Your task to perform on an android device: Go to ESPN.com Image 0: 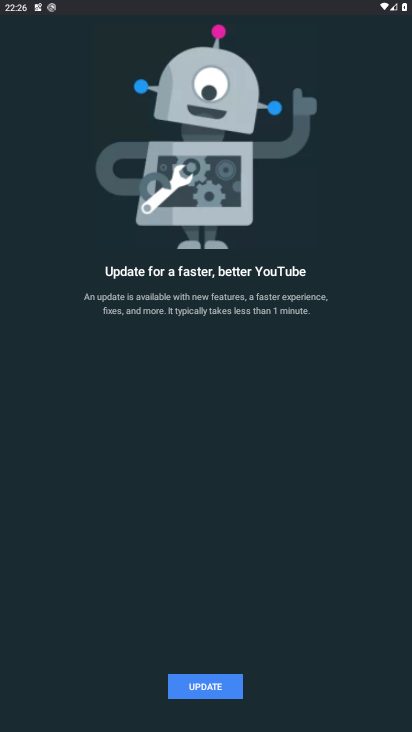
Step 0: press home button
Your task to perform on an android device: Go to ESPN.com Image 1: 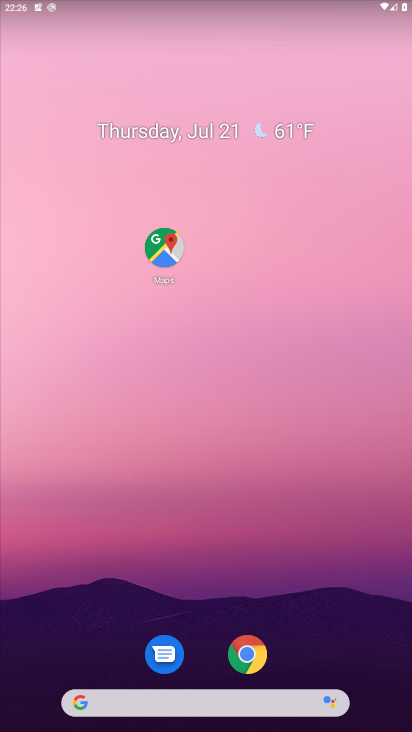
Step 1: click (143, 695)
Your task to perform on an android device: Go to ESPN.com Image 2: 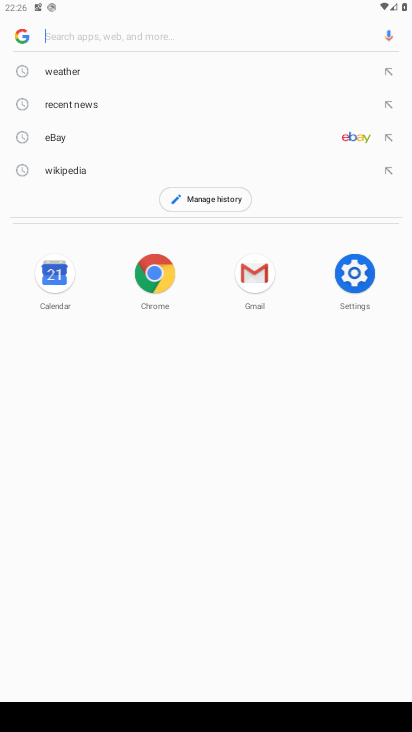
Step 2: click (59, 37)
Your task to perform on an android device: Go to ESPN.com Image 3: 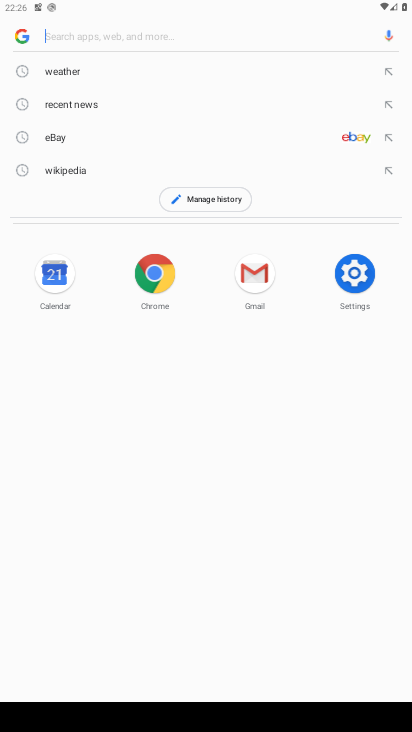
Step 3: type "ESPN.com"
Your task to perform on an android device: Go to ESPN.com Image 4: 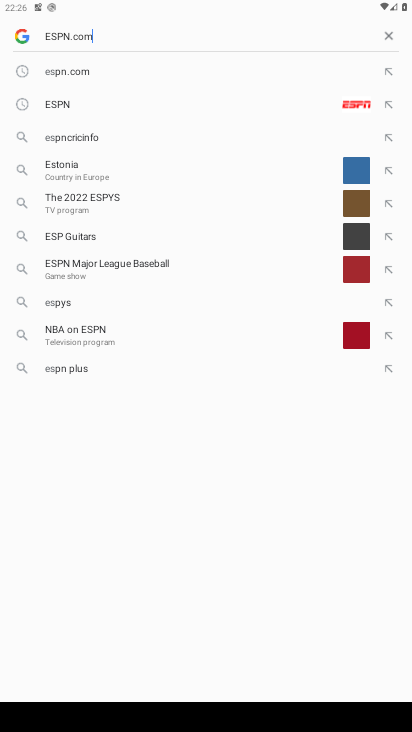
Step 4: type ""
Your task to perform on an android device: Go to ESPN.com Image 5: 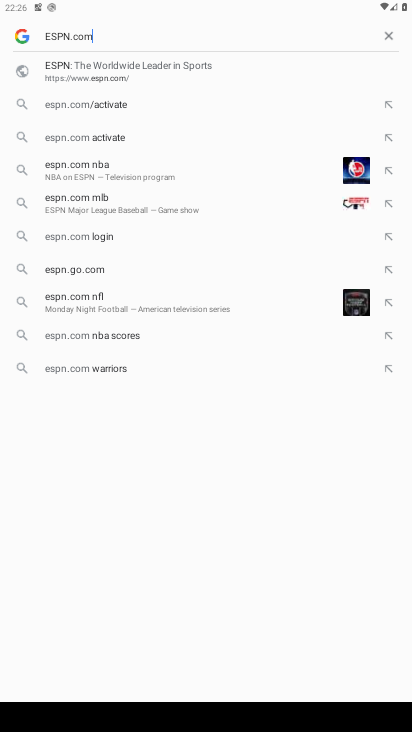
Step 5: click (84, 71)
Your task to perform on an android device: Go to ESPN.com Image 6: 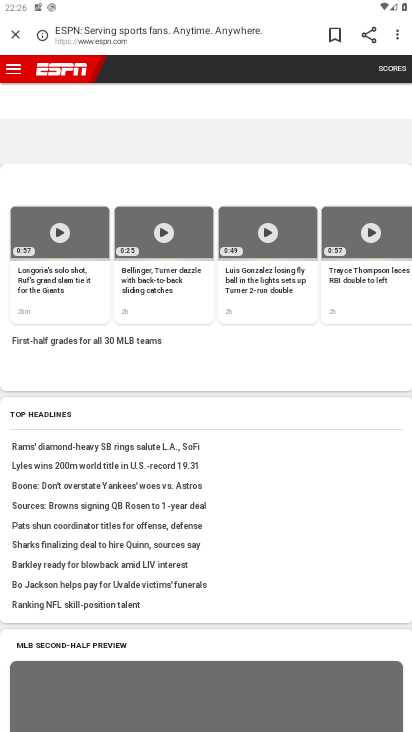
Step 6: task complete